Your task to perform on an android device: check out phone information Image 0: 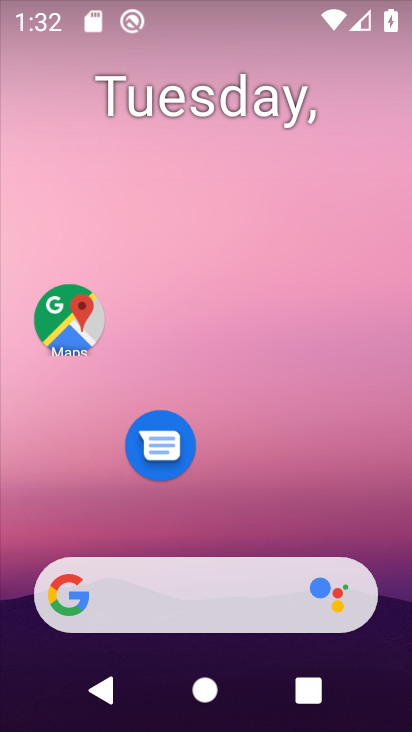
Step 0: drag from (301, 522) to (190, 168)
Your task to perform on an android device: check out phone information Image 1: 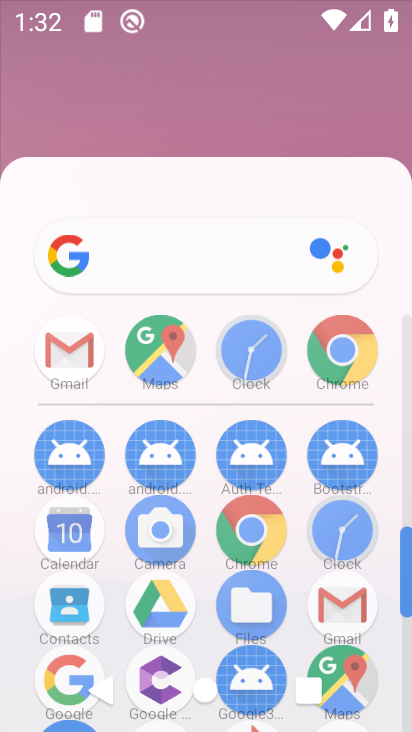
Step 1: click (190, 168)
Your task to perform on an android device: check out phone information Image 2: 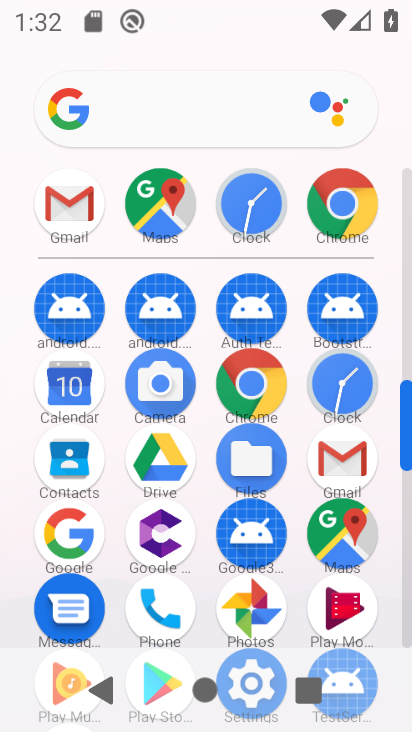
Step 2: drag from (202, 527) to (124, 157)
Your task to perform on an android device: check out phone information Image 3: 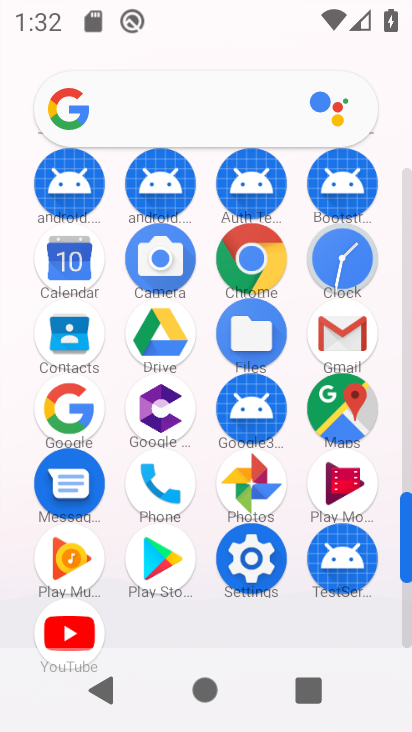
Step 3: click (248, 550)
Your task to perform on an android device: check out phone information Image 4: 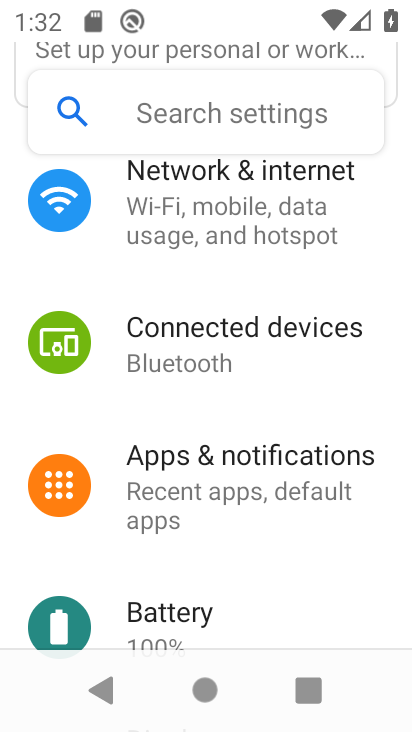
Step 4: drag from (181, 316) to (156, 194)
Your task to perform on an android device: check out phone information Image 5: 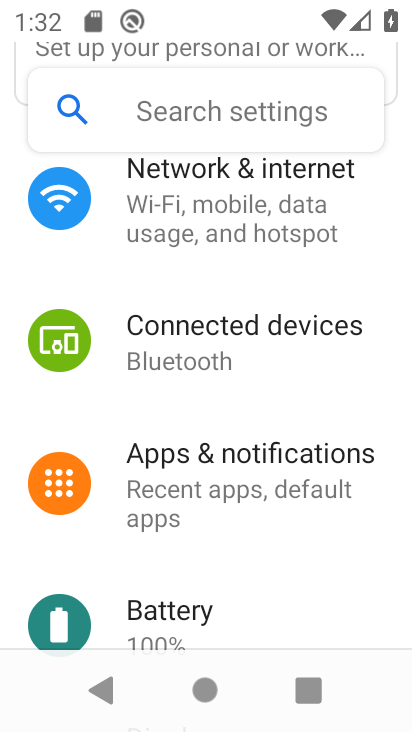
Step 5: drag from (212, 543) to (166, 318)
Your task to perform on an android device: check out phone information Image 6: 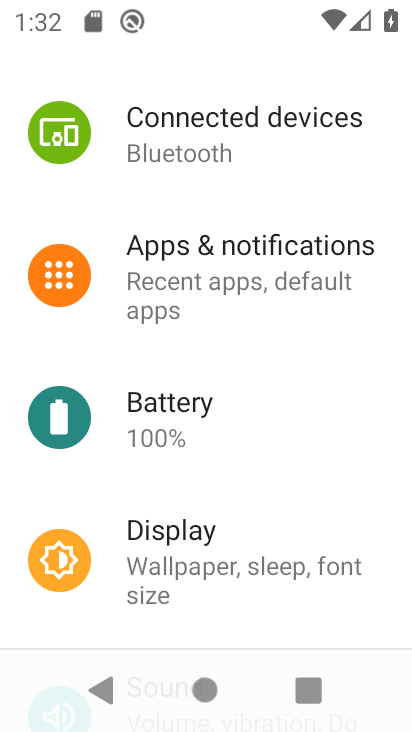
Step 6: drag from (235, 475) to (165, 152)
Your task to perform on an android device: check out phone information Image 7: 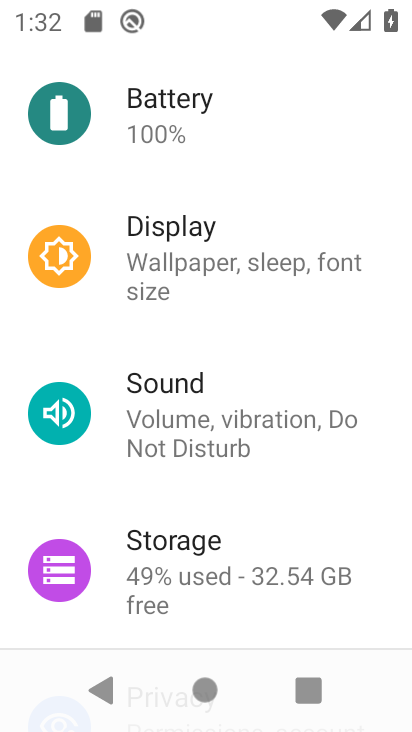
Step 7: drag from (190, 486) to (164, 281)
Your task to perform on an android device: check out phone information Image 8: 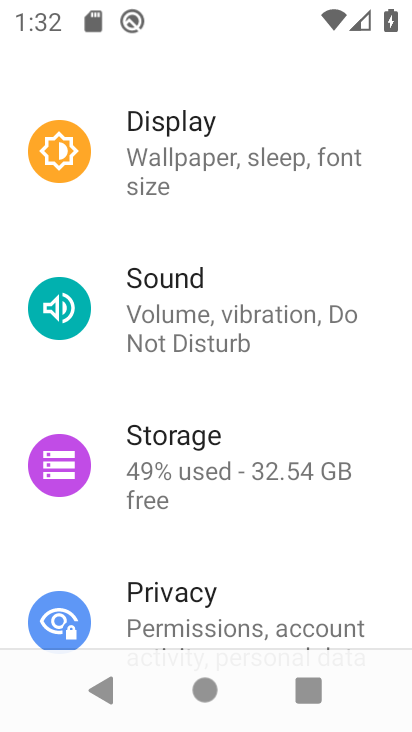
Step 8: drag from (225, 518) to (179, 277)
Your task to perform on an android device: check out phone information Image 9: 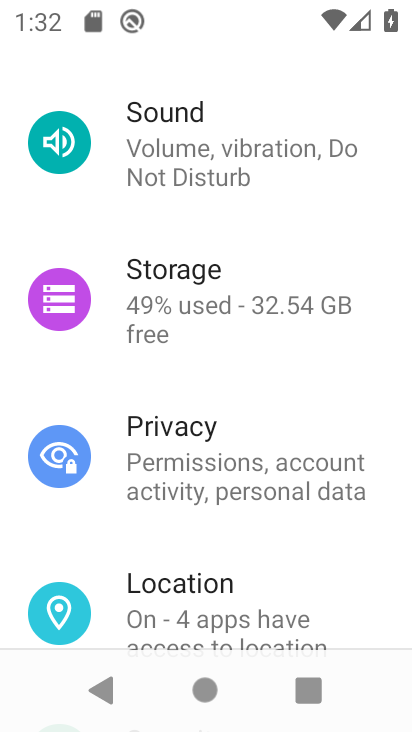
Step 9: drag from (207, 266) to (195, 207)
Your task to perform on an android device: check out phone information Image 10: 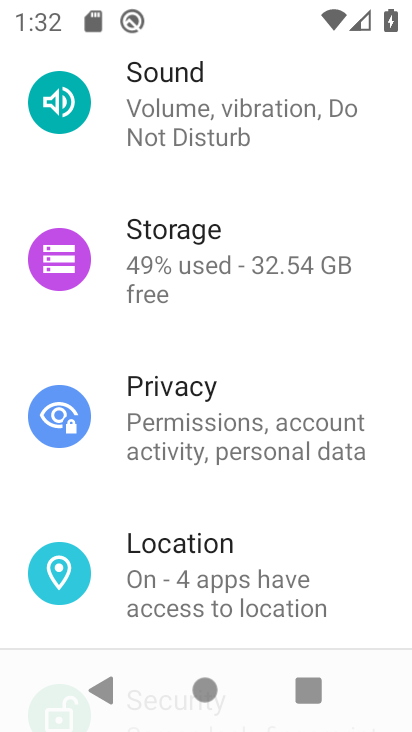
Step 10: drag from (246, 505) to (200, 211)
Your task to perform on an android device: check out phone information Image 11: 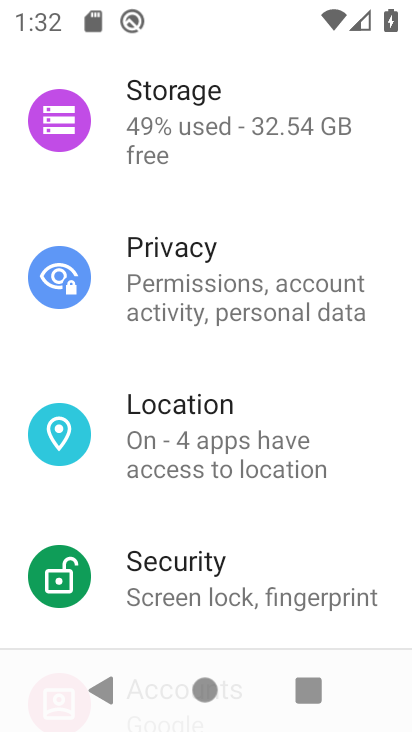
Step 11: drag from (248, 537) to (210, 267)
Your task to perform on an android device: check out phone information Image 12: 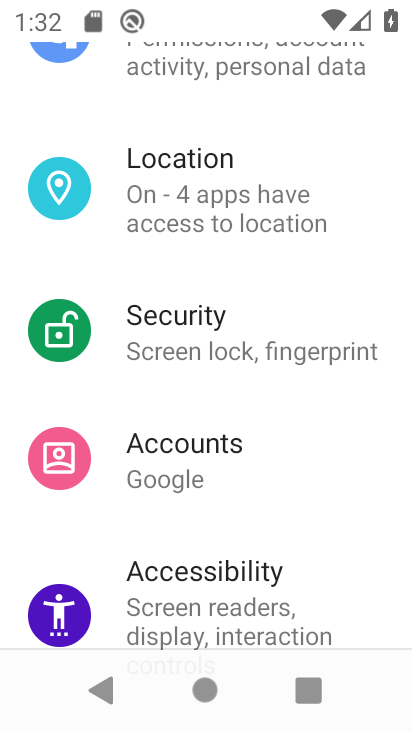
Step 12: drag from (206, 536) to (215, 250)
Your task to perform on an android device: check out phone information Image 13: 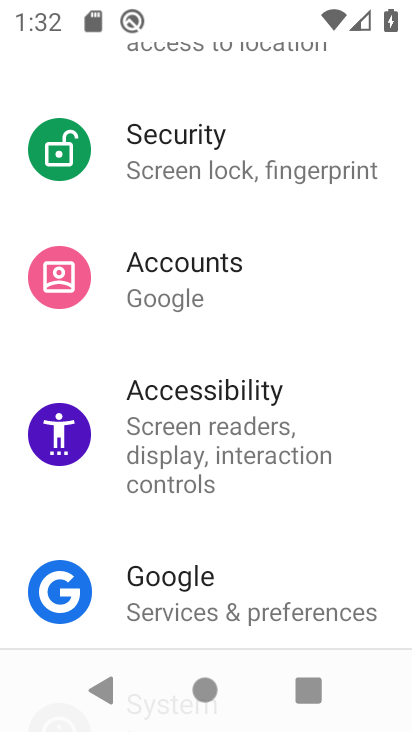
Step 13: drag from (252, 490) to (217, 228)
Your task to perform on an android device: check out phone information Image 14: 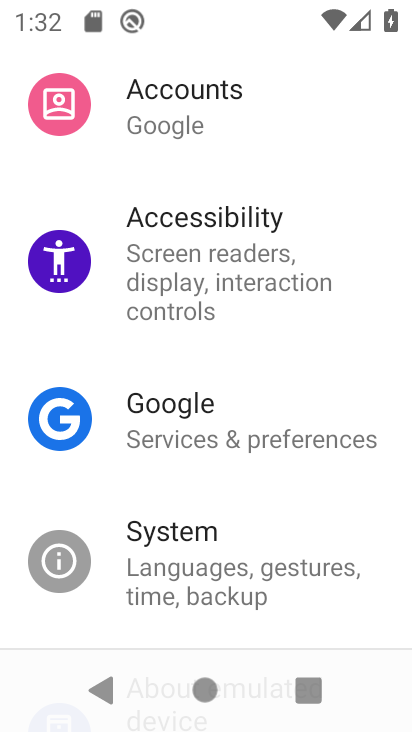
Step 14: drag from (240, 514) to (206, 296)
Your task to perform on an android device: check out phone information Image 15: 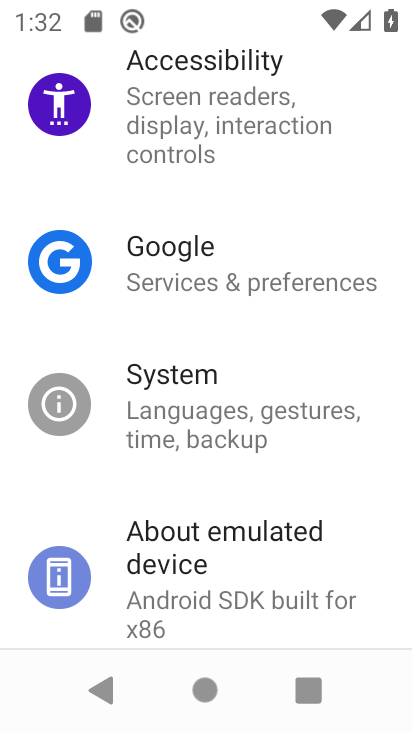
Step 15: click (175, 561)
Your task to perform on an android device: check out phone information Image 16: 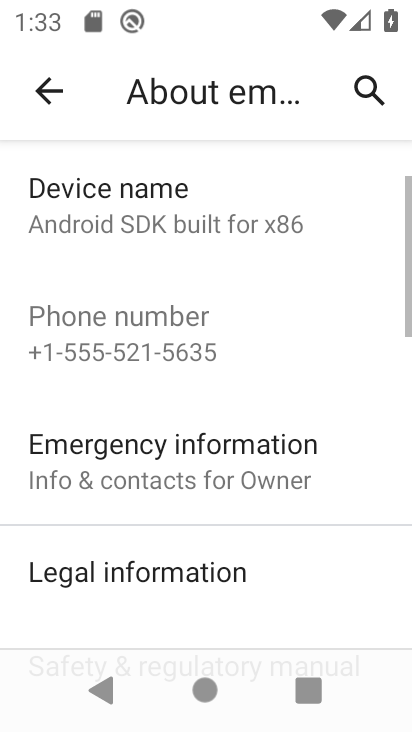
Step 16: task complete